Your task to perform on an android device: clear all cookies in the chrome app Image 0: 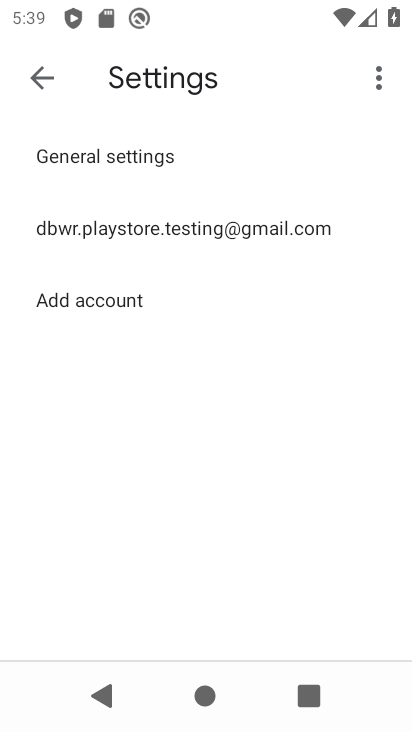
Step 0: press home button
Your task to perform on an android device: clear all cookies in the chrome app Image 1: 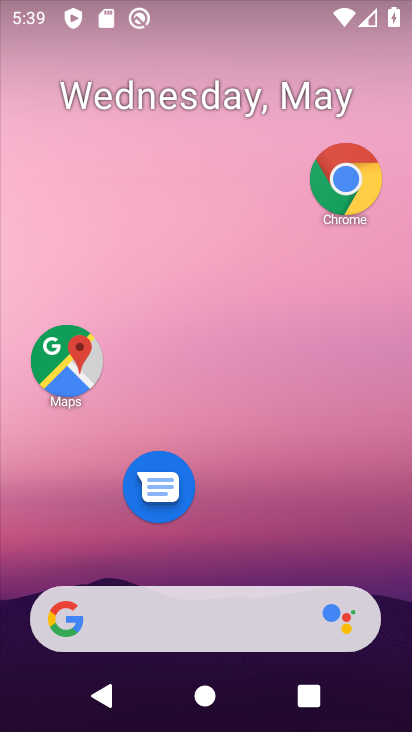
Step 1: click (351, 171)
Your task to perform on an android device: clear all cookies in the chrome app Image 2: 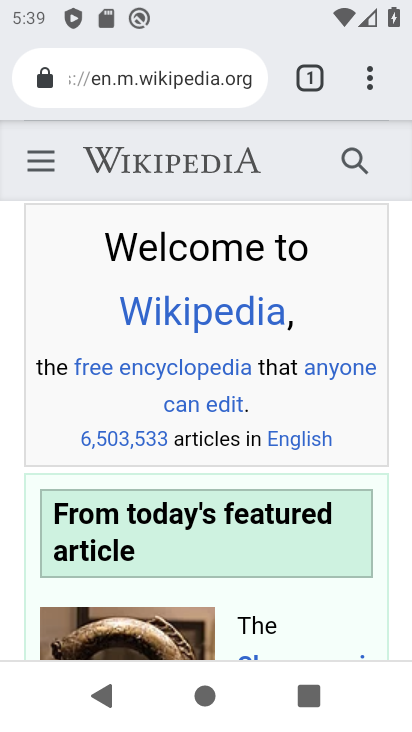
Step 2: click (369, 77)
Your task to perform on an android device: clear all cookies in the chrome app Image 3: 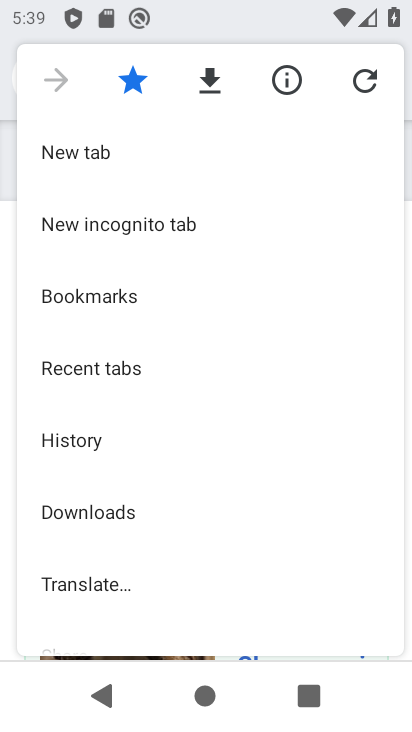
Step 3: click (73, 441)
Your task to perform on an android device: clear all cookies in the chrome app Image 4: 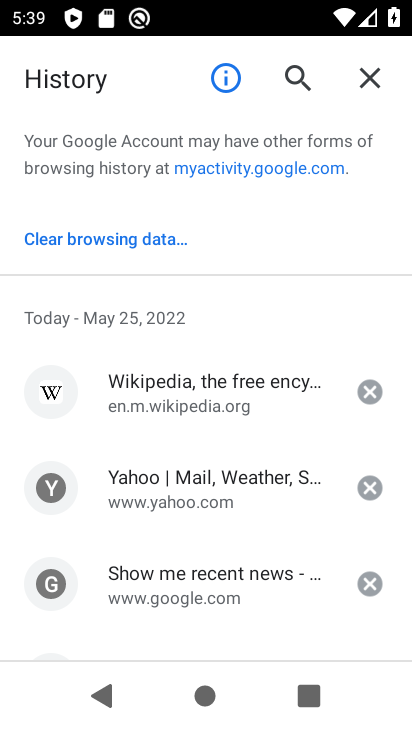
Step 4: click (104, 238)
Your task to perform on an android device: clear all cookies in the chrome app Image 5: 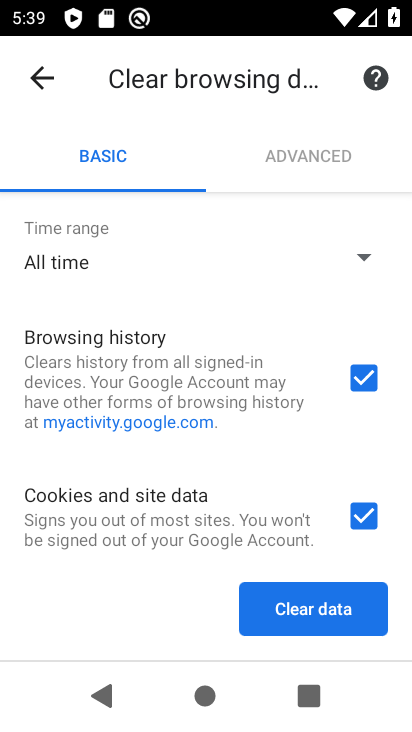
Step 5: click (362, 378)
Your task to perform on an android device: clear all cookies in the chrome app Image 6: 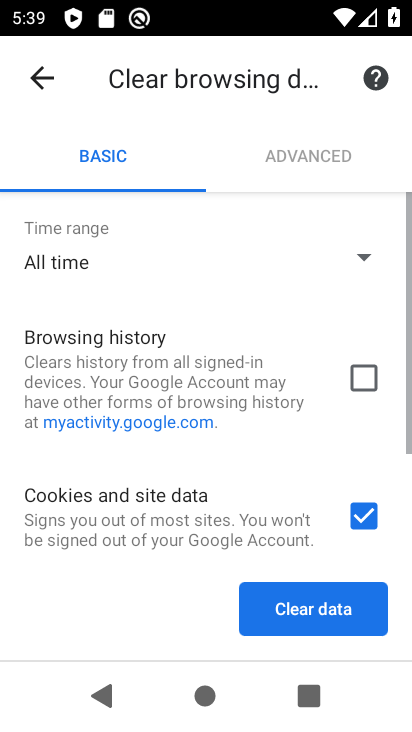
Step 6: drag from (243, 475) to (233, 196)
Your task to perform on an android device: clear all cookies in the chrome app Image 7: 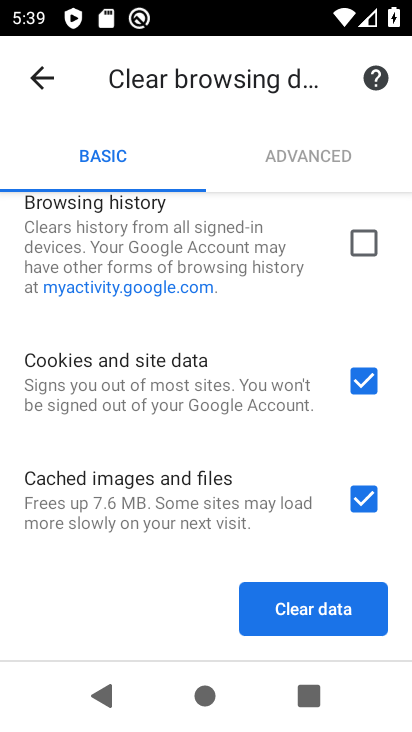
Step 7: click (373, 497)
Your task to perform on an android device: clear all cookies in the chrome app Image 8: 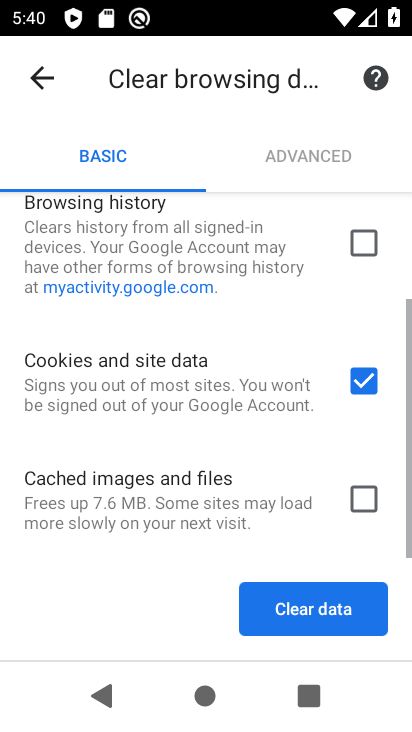
Step 8: click (302, 604)
Your task to perform on an android device: clear all cookies in the chrome app Image 9: 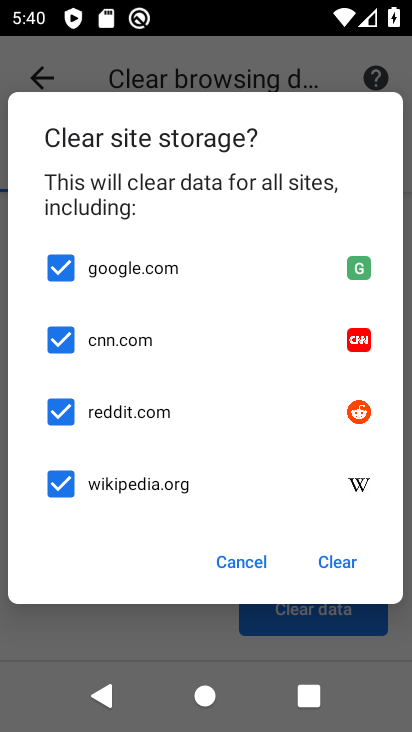
Step 9: click (338, 559)
Your task to perform on an android device: clear all cookies in the chrome app Image 10: 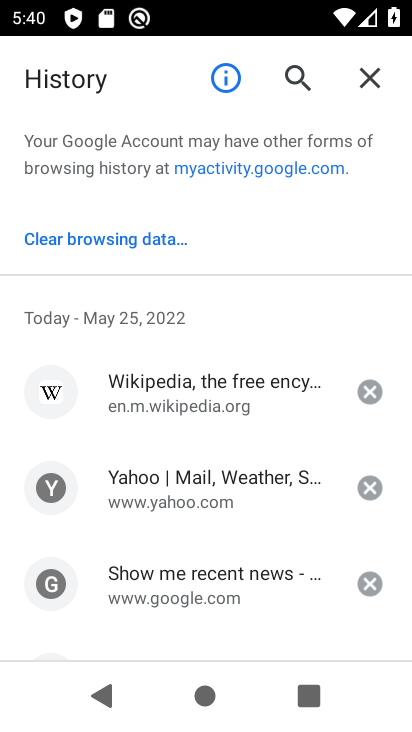
Step 10: task complete